Your task to perform on an android device: Go to Reddit.com Image 0: 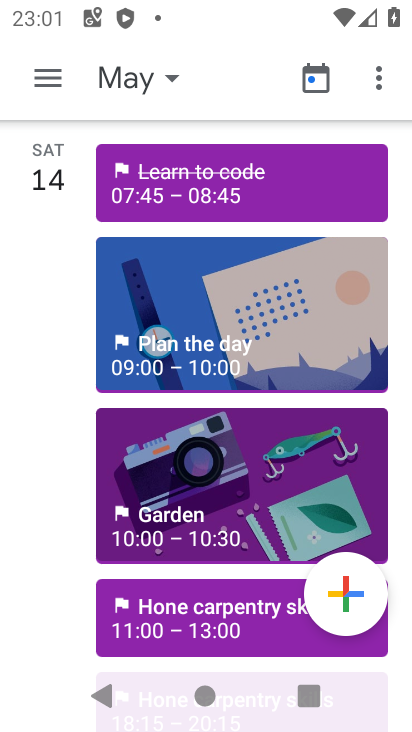
Step 0: press home button
Your task to perform on an android device: Go to Reddit.com Image 1: 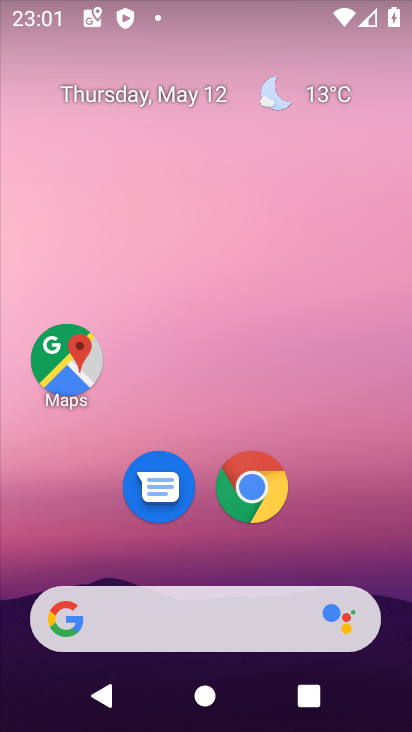
Step 1: click (251, 487)
Your task to perform on an android device: Go to Reddit.com Image 2: 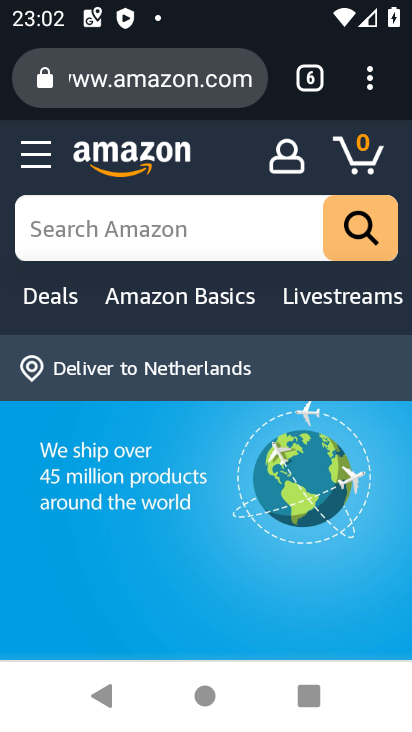
Step 2: click (236, 86)
Your task to perform on an android device: Go to Reddit.com Image 3: 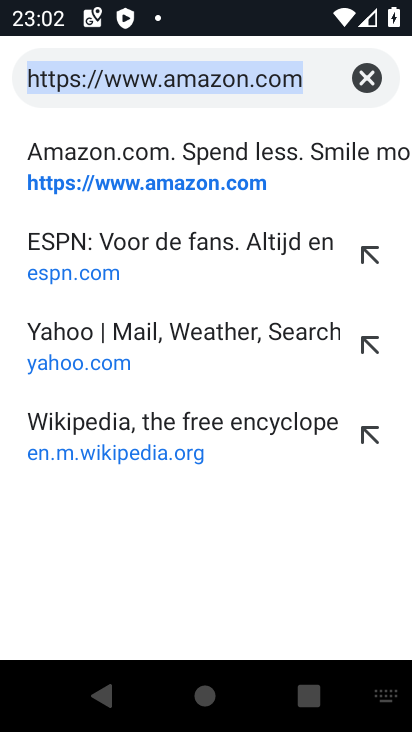
Step 3: click (364, 80)
Your task to perform on an android device: Go to Reddit.com Image 4: 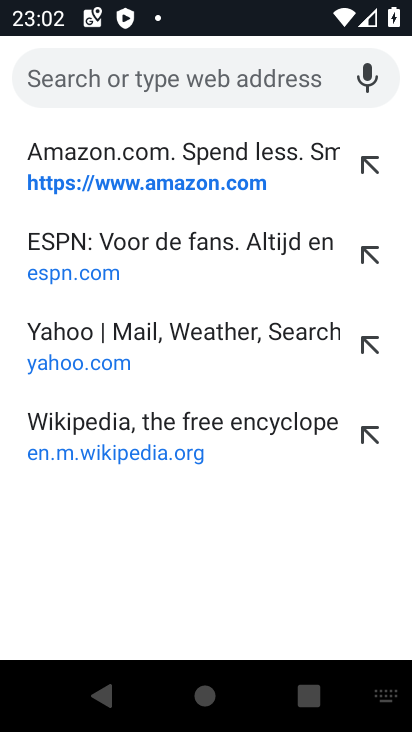
Step 4: type "reddit"
Your task to perform on an android device: Go to Reddit.com Image 5: 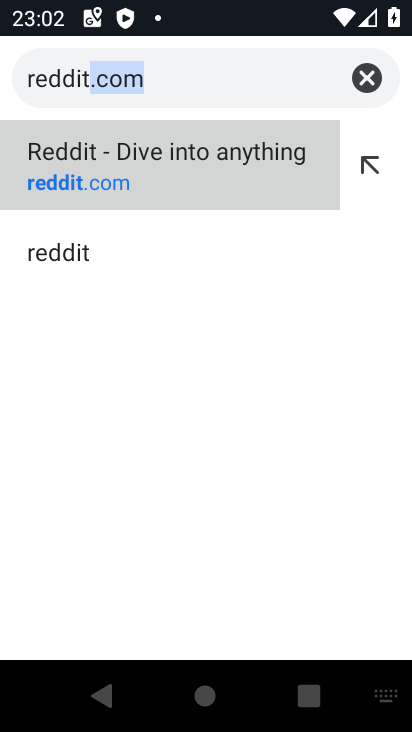
Step 5: type ""
Your task to perform on an android device: Go to Reddit.com Image 6: 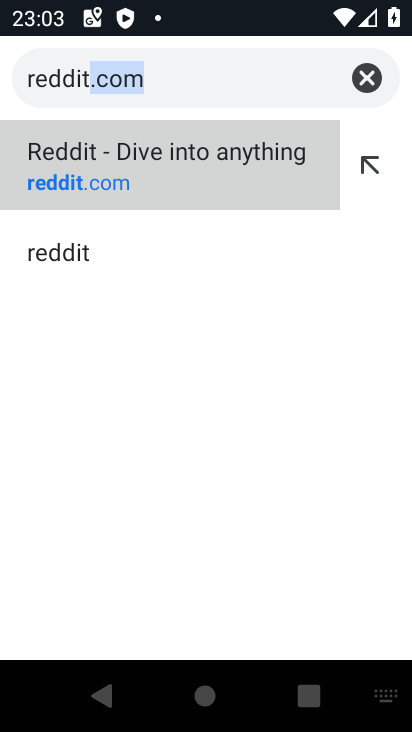
Step 6: click (210, 153)
Your task to perform on an android device: Go to Reddit.com Image 7: 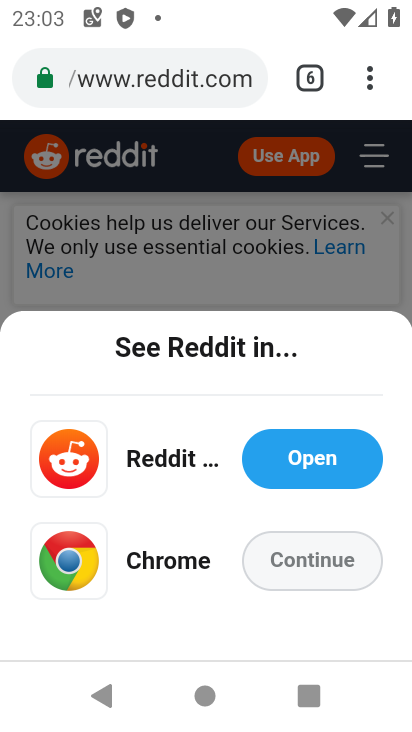
Step 7: task complete